Your task to perform on an android device: turn pop-ups off in chrome Image 0: 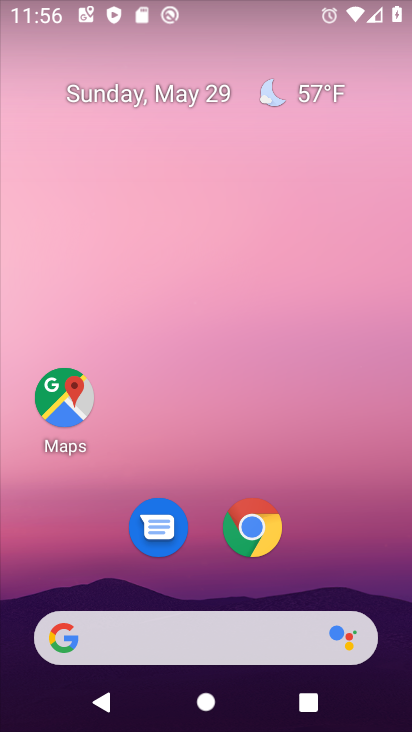
Step 0: task complete